Your task to perform on an android device: Go to Google maps Image 0: 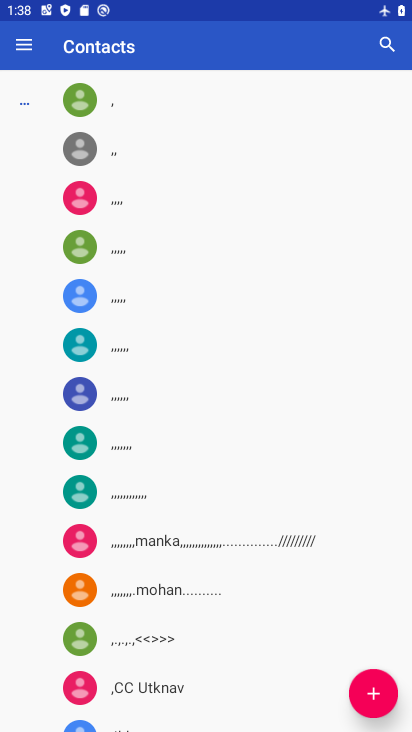
Step 0: press home button
Your task to perform on an android device: Go to Google maps Image 1: 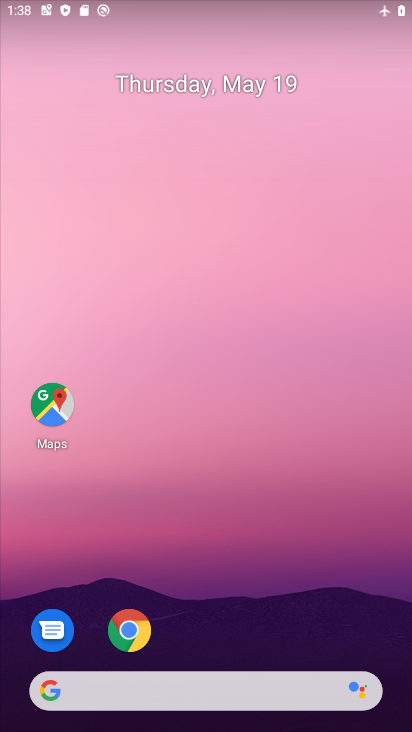
Step 1: click (52, 406)
Your task to perform on an android device: Go to Google maps Image 2: 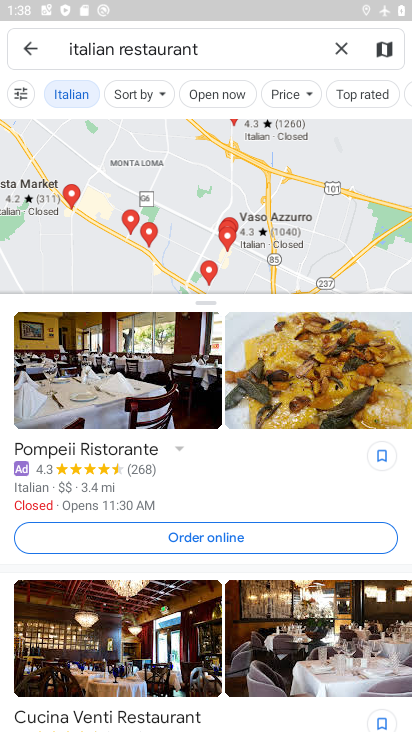
Step 2: task complete